Your task to perform on an android device: Go to eBay Image 0: 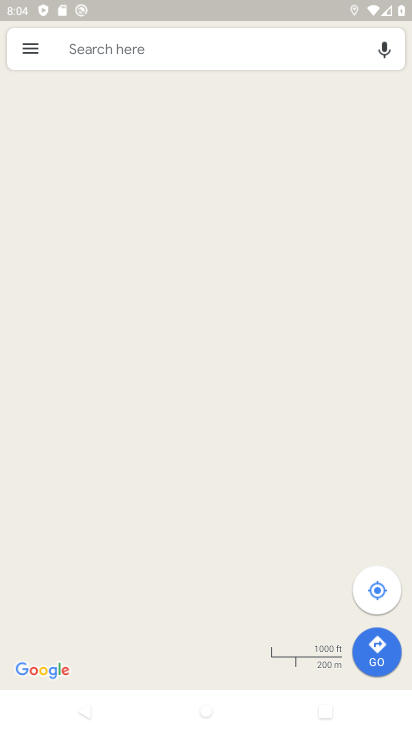
Step 0: press home button
Your task to perform on an android device: Go to eBay Image 1: 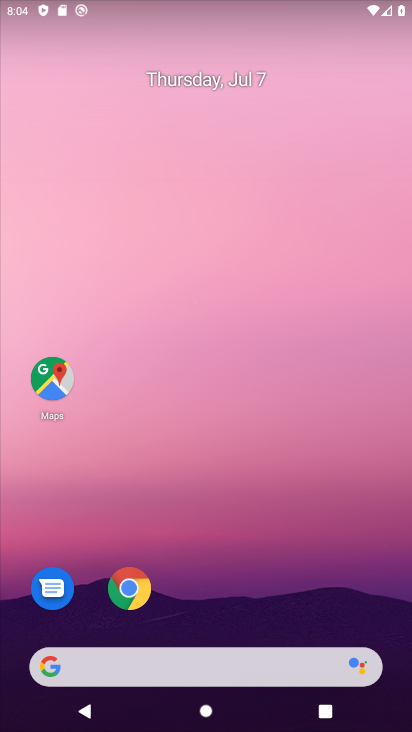
Step 1: click (136, 588)
Your task to perform on an android device: Go to eBay Image 2: 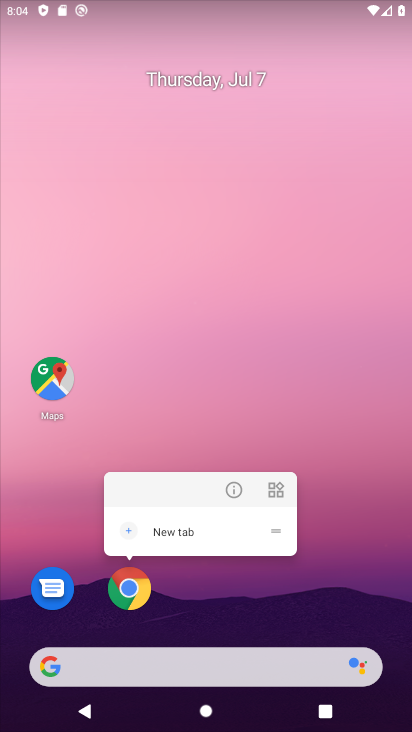
Step 2: click (122, 582)
Your task to perform on an android device: Go to eBay Image 3: 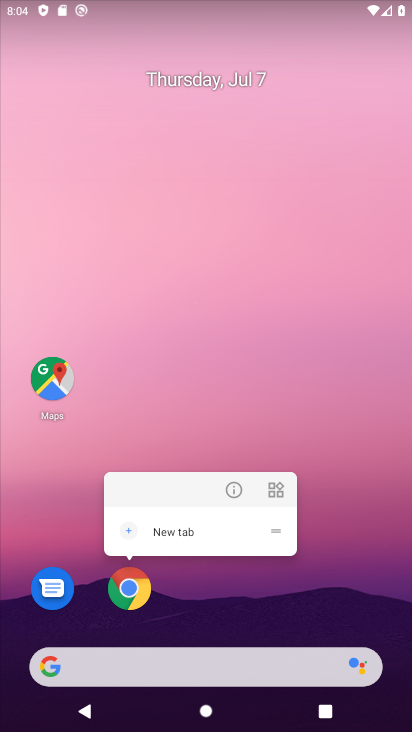
Step 3: click (133, 592)
Your task to perform on an android device: Go to eBay Image 4: 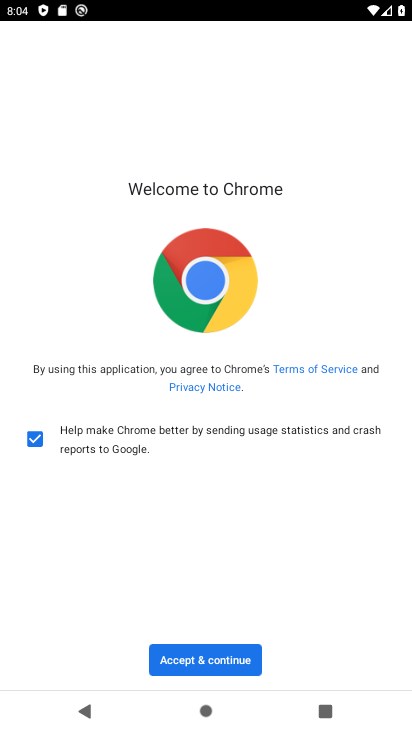
Step 4: click (203, 665)
Your task to perform on an android device: Go to eBay Image 5: 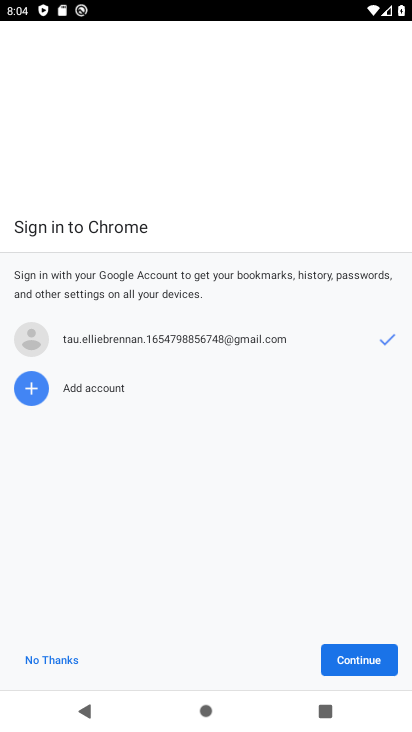
Step 5: click (361, 664)
Your task to perform on an android device: Go to eBay Image 6: 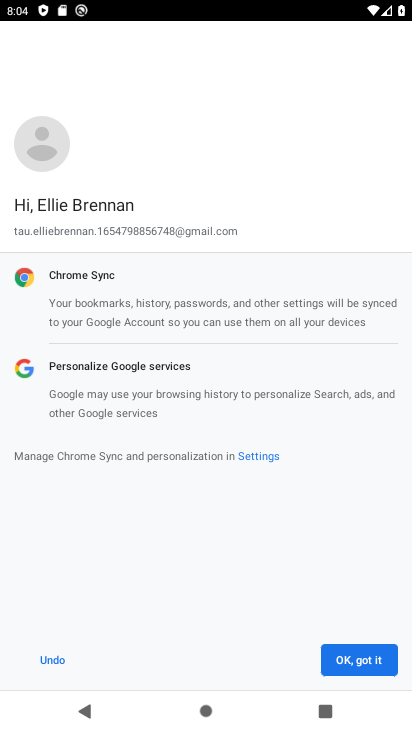
Step 6: click (365, 666)
Your task to perform on an android device: Go to eBay Image 7: 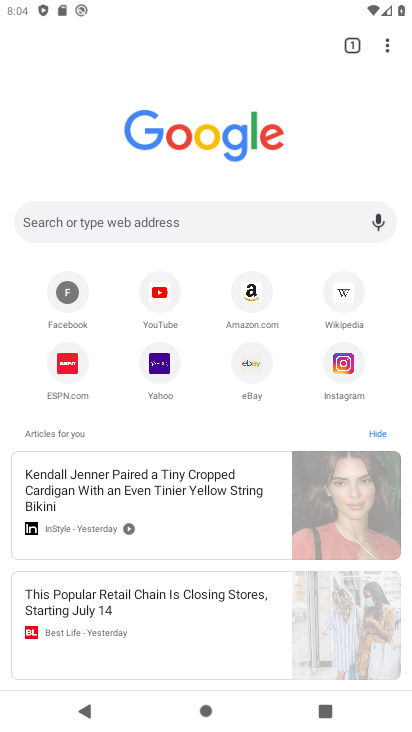
Step 7: click (249, 374)
Your task to perform on an android device: Go to eBay Image 8: 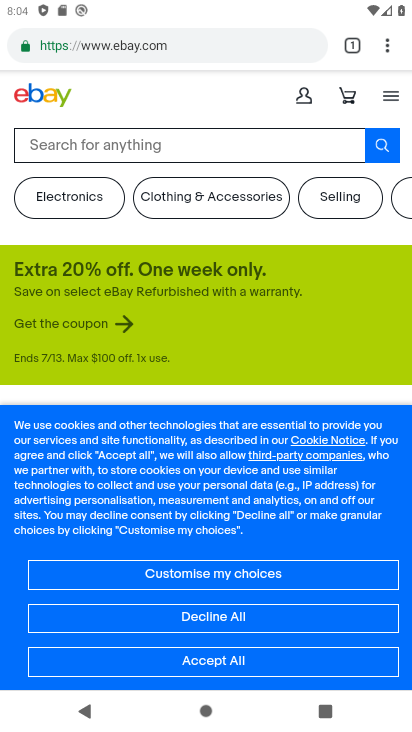
Step 8: task complete